Your task to perform on an android device: Go to internet settings Image 0: 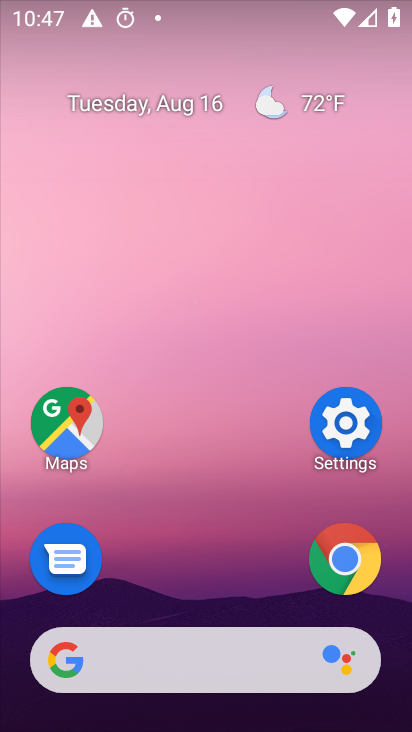
Step 0: click (347, 425)
Your task to perform on an android device: Go to internet settings Image 1: 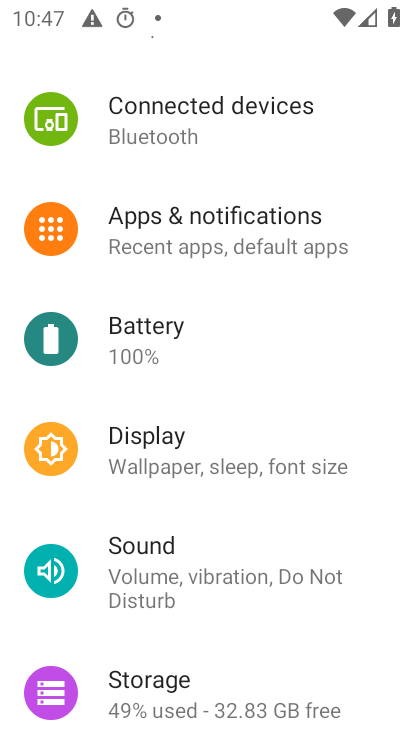
Step 1: drag from (340, 154) to (280, 670)
Your task to perform on an android device: Go to internet settings Image 2: 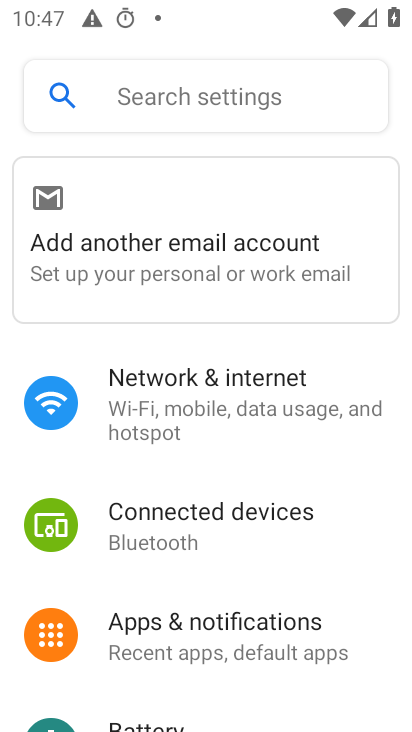
Step 2: click (226, 386)
Your task to perform on an android device: Go to internet settings Image 3: 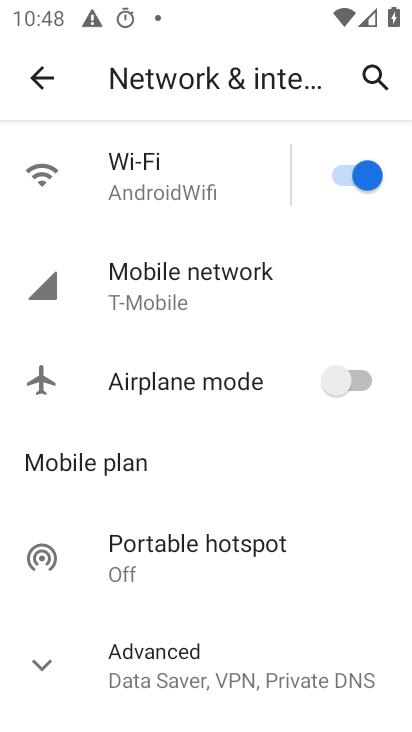
Step 3: task complete